Your task to perform on an android device: Is it going to rain this weekend? Image 0: 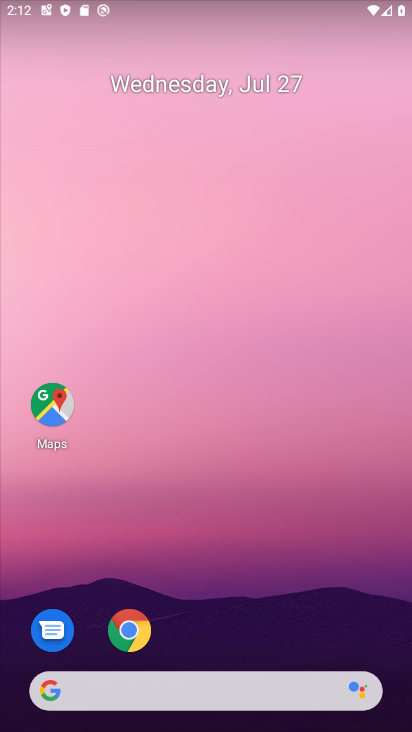
Step 0: drag from (342, 186) to (335, 77)
Your task to perform on an android device: Is it going to rain this weekend? Image 1: 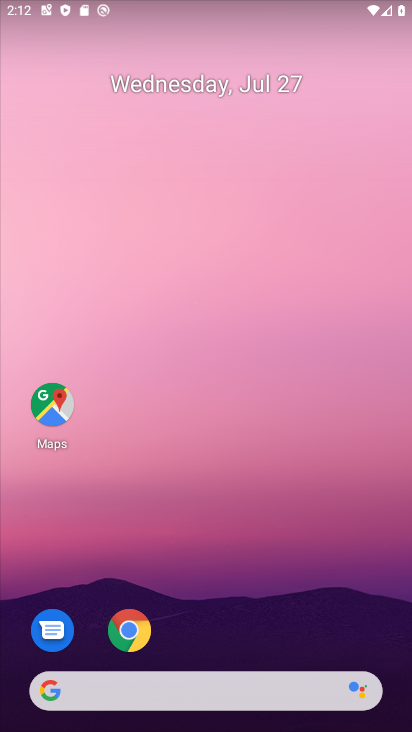
Step 1: drag from (402, 668) to (365, 90)
Your task to perform on an android device: Is it going to rain this weekend? Image 2: 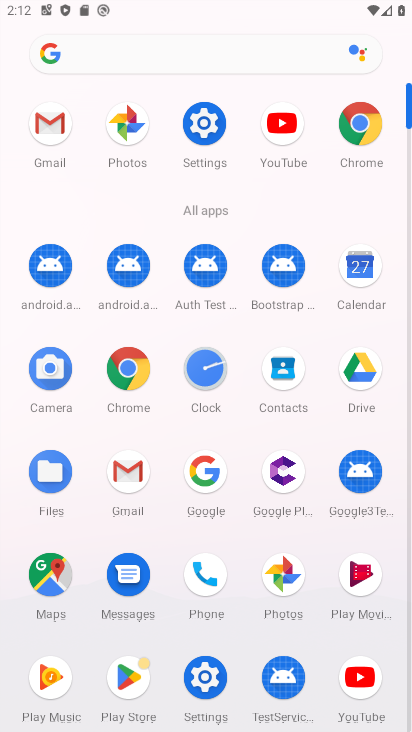
Step 2: click (199, 470)
Your task to perform on an android device: Is it going to rain this weekend? Image 3: 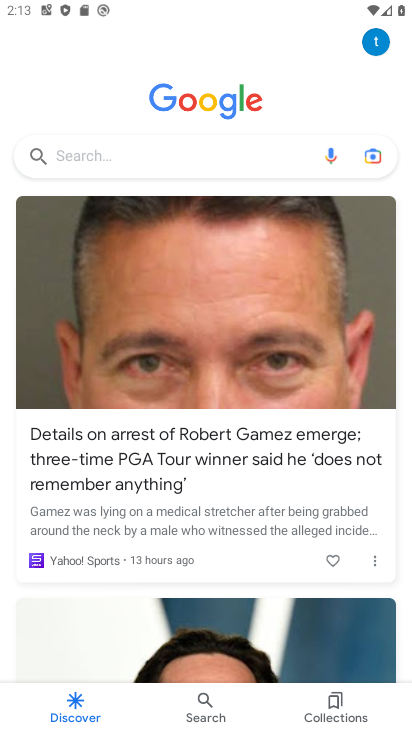
Step 3: task complete